Your task to perform on an android device: turn off picture-in-picture Image 0: 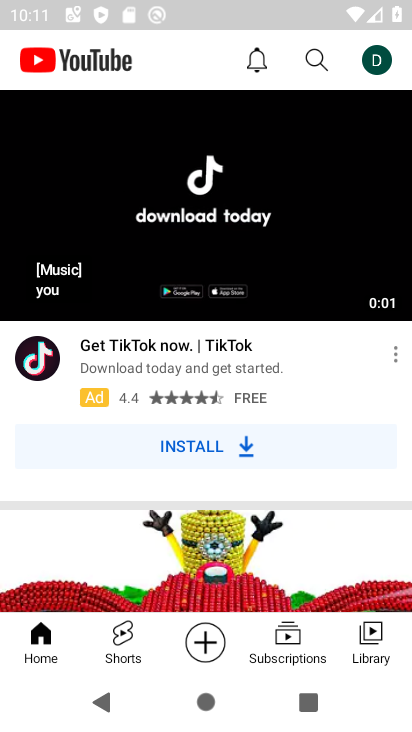
Step 0: press home button
Your task to perform on an android device: turn off picture-in-picture Image 1: 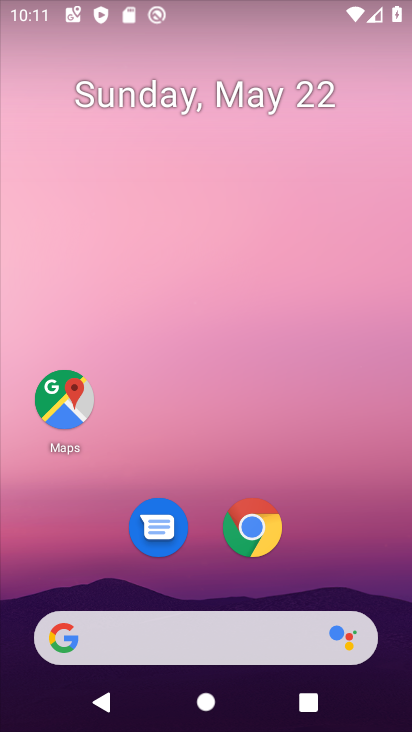
Step 1: drag from (330, 555) to (236, 8)
Your task to perform on an android device: turn off picture-in-picture Image 2: 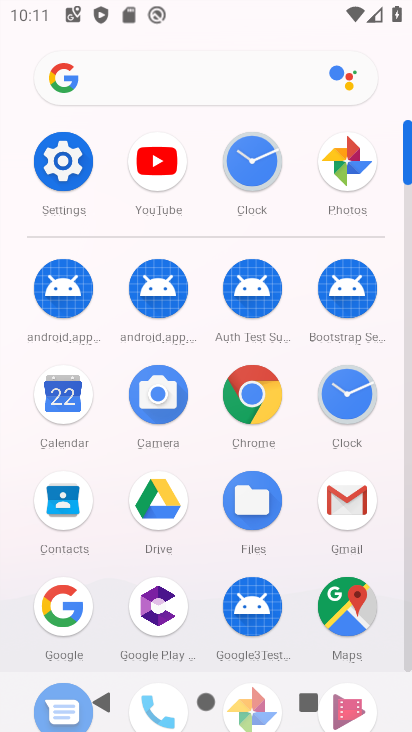
Step 2: click (84, 182)
Your task to perform on an android device: turn off picture-in-picture Image 3: 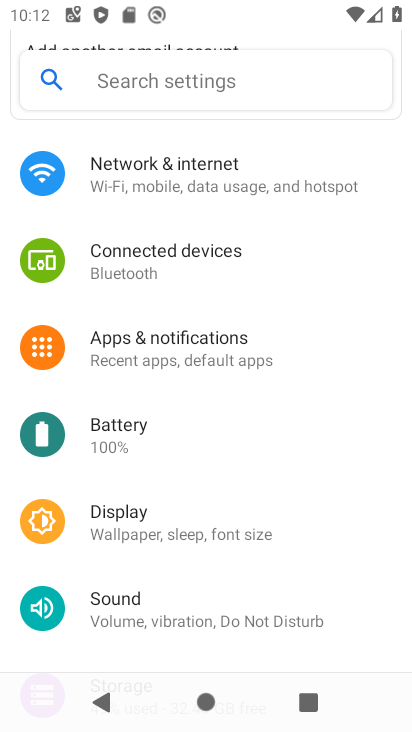
Step 3: click (188, 345)
Your task to perform on an android device: turn off picture-in-picture Image 4: 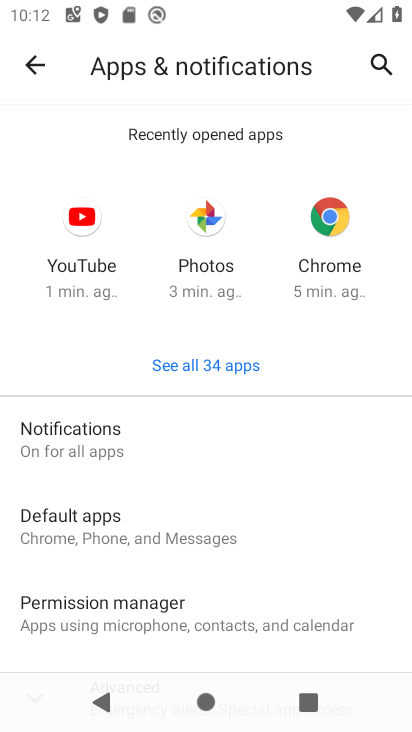
Step 4: click (155, 449)
Your task to perform on an android device: turn off picture-in-picture Image 5: 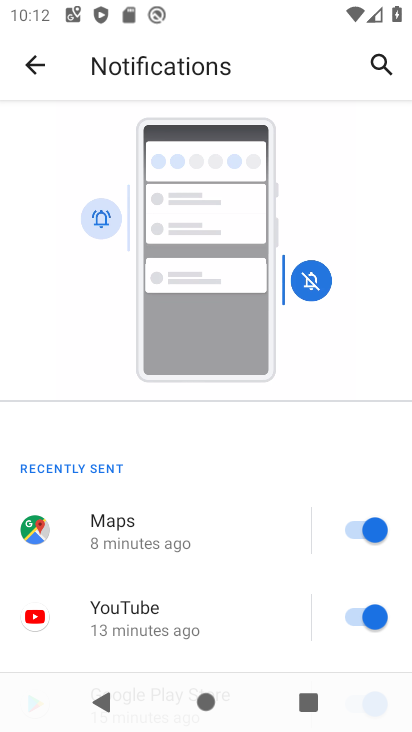
Step 5: drag from (194, 615) to (192, 318)
Your task to perform on an android device: turn off picture-in-picture Image 6: 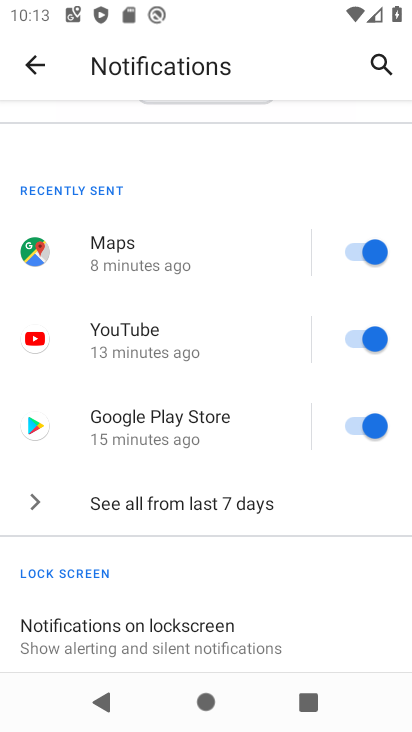
Step 6: drag from (171, 598) to (174, 424)
Your task to perform on an android device: turn off picture-in-picture Image 7: 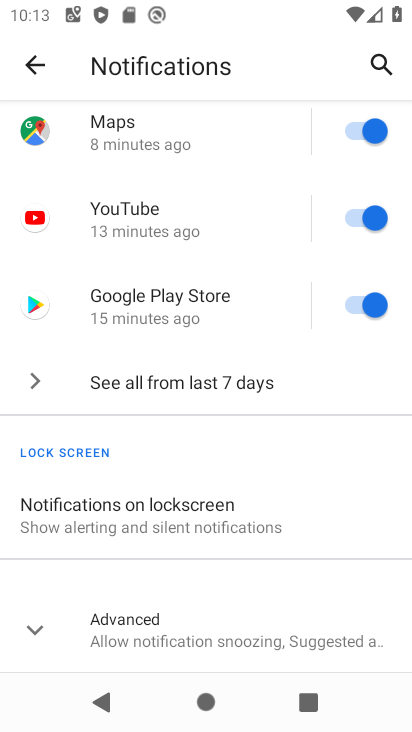
Step 7: click (164, 615)
Your task to perform on an android device: turn off picture-in-picture Image 8: 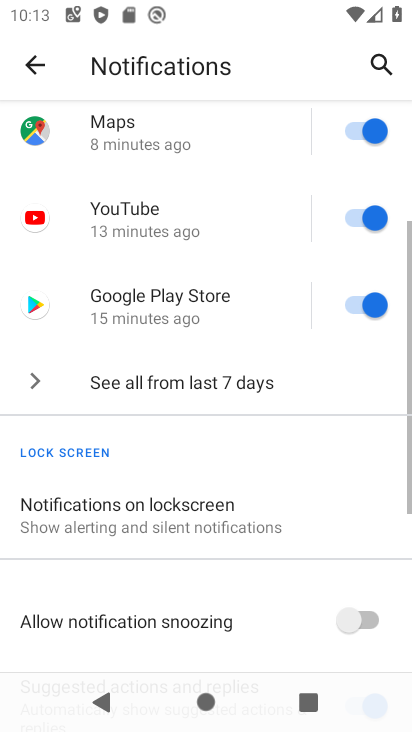
Step 8: drag from (230, 586) to (238, 380)
Your task to perform on an android device: turn off picture-in-picture Image 9: 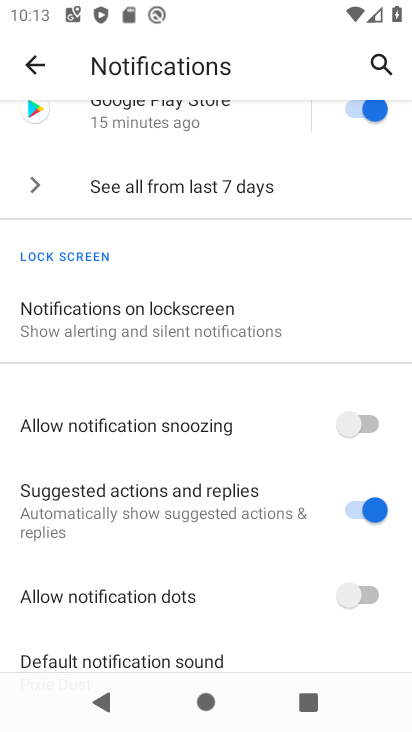
Step 9: click (361, 569)
Your task to perform on an android device: turn off picture-in-picture Image 10: 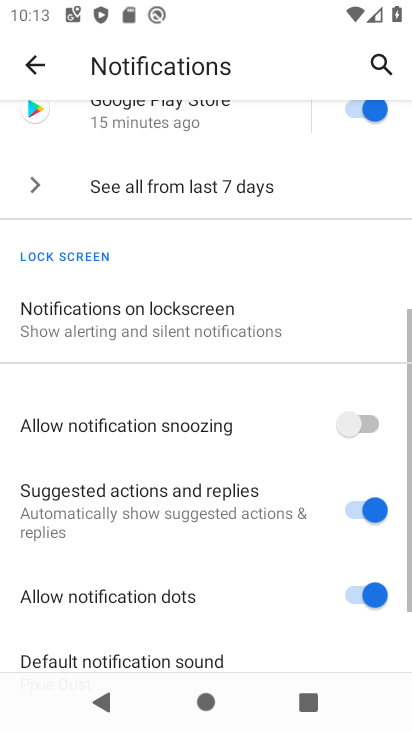
Step 10: task complete